Your task to perform on an android device: turn on wifi Image 0: 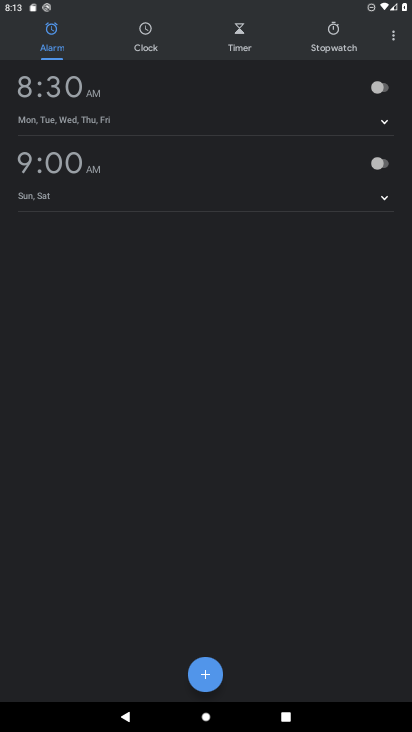
Step 0: press home button
Your task to perform on an android device: turn on wifi Image 1: 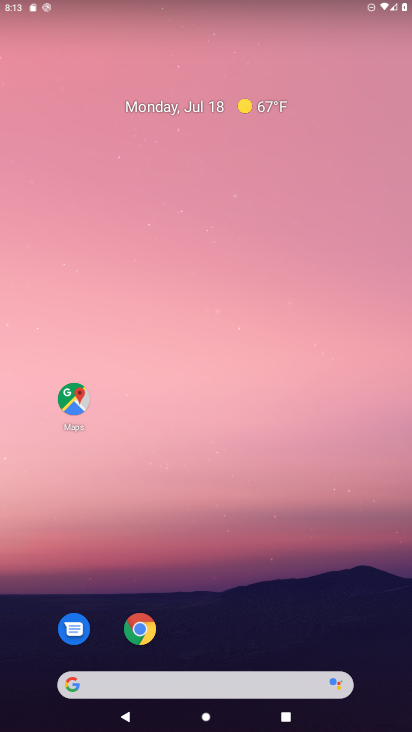
Step 1: drag from (213, 623) to (198, 41)
Your task to perform on an android device: turn on wifi Image 2: 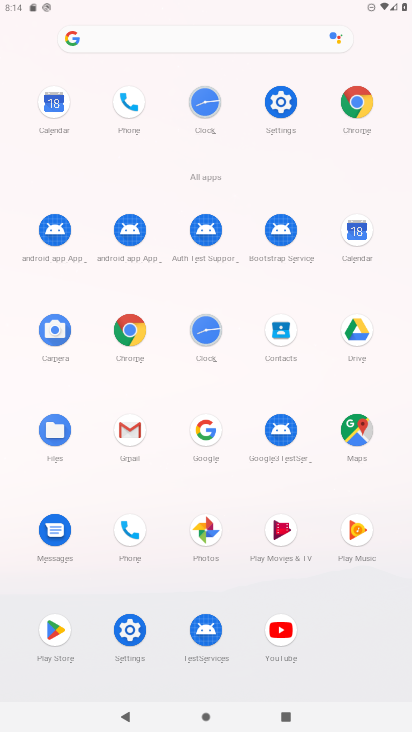
Step 2: click (285, 105)
Your task to perform on an android device: turn on wifi Image 3: 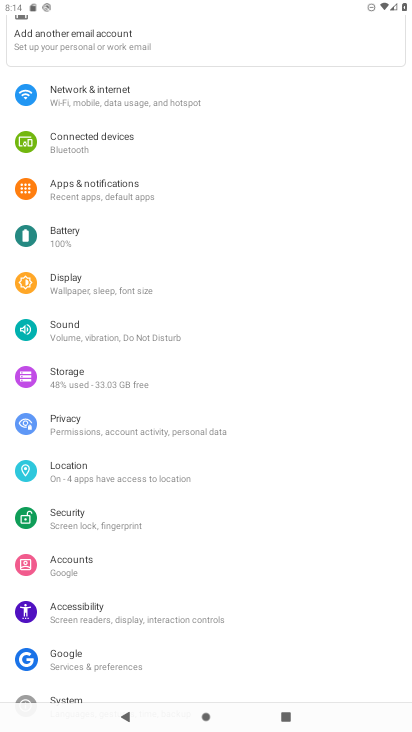
Step 3: click (155, 111)
Your task to perform on an android device: turn on wifi Image 4: 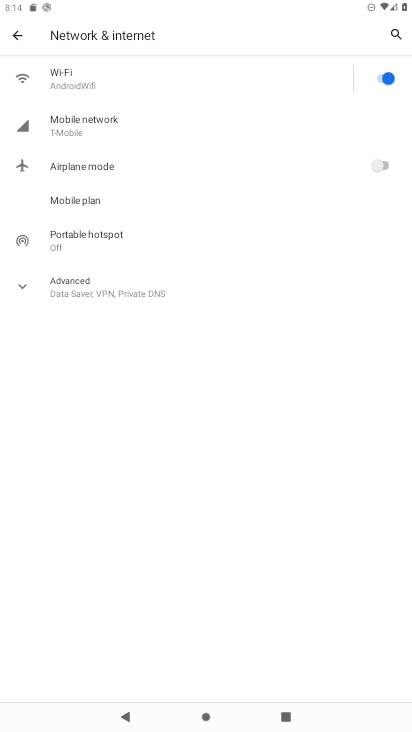
Step 4: click (123, 81)
Your task to perform on an android device: turn on wifi Image 5: 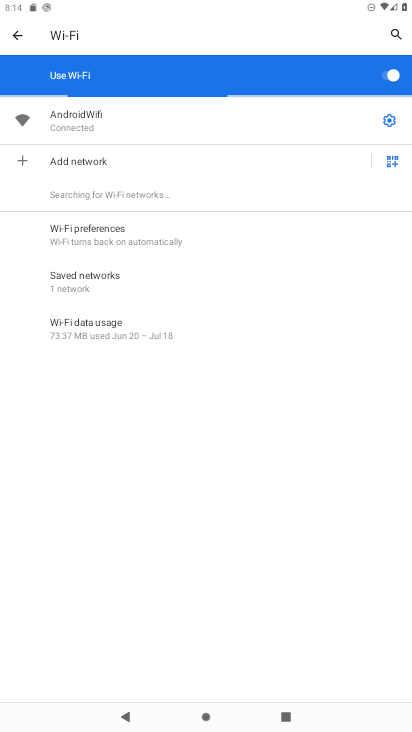
Step 5: task complete